Your task to perform on an android device: Find coffee shops on Maps Image 0: 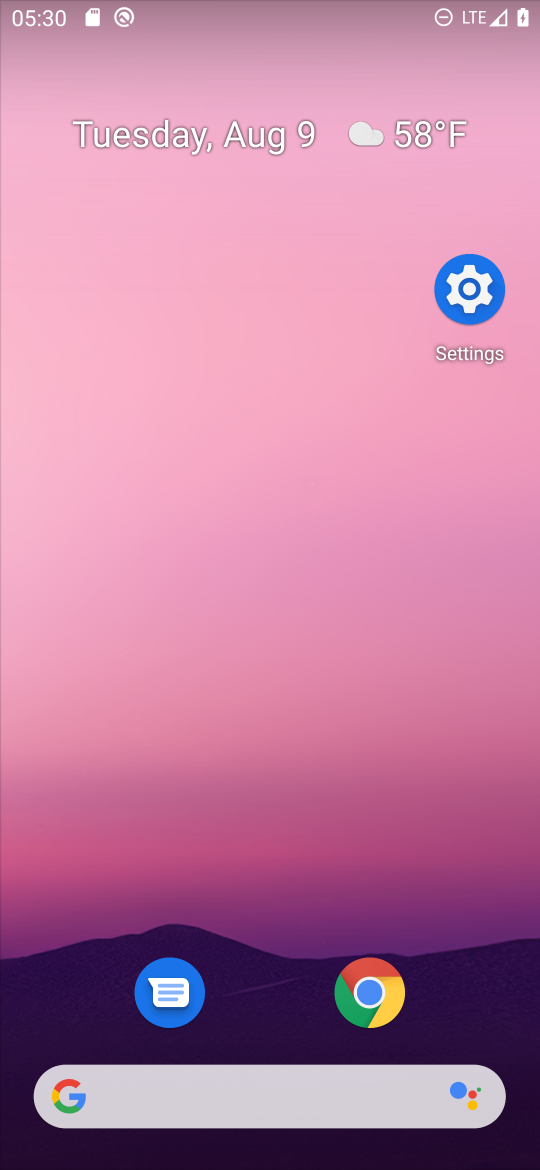
Step 0: drag from (205, 1099) to (449, 273)
Your task to perform on an android device: Find coffee shops on Maps Image 1: 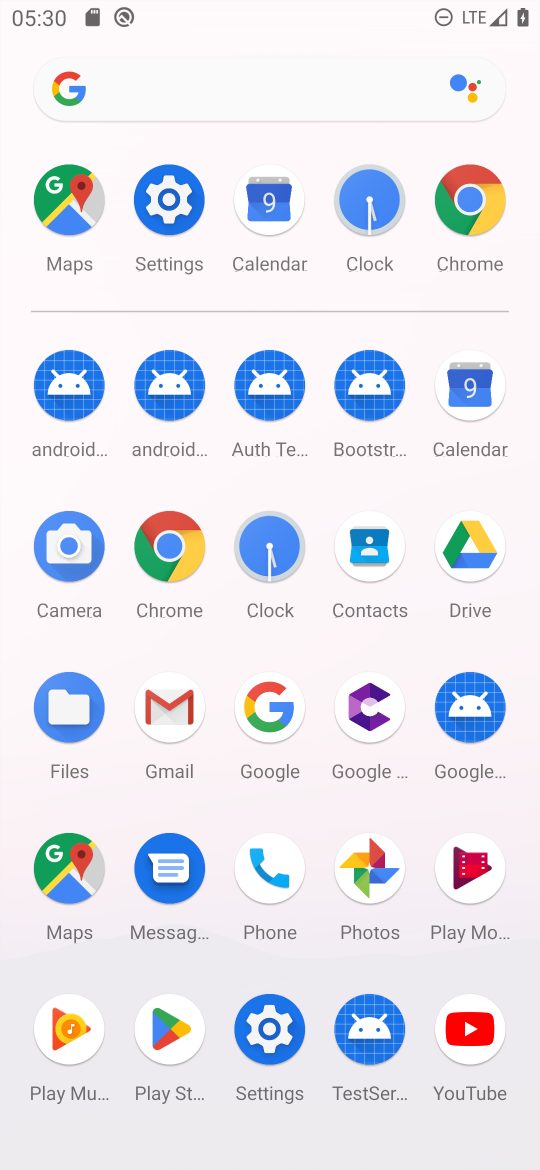
Step 1: click (82, 851)
Your task to perform on an android device: Find coffee shops on Maps Image 2: 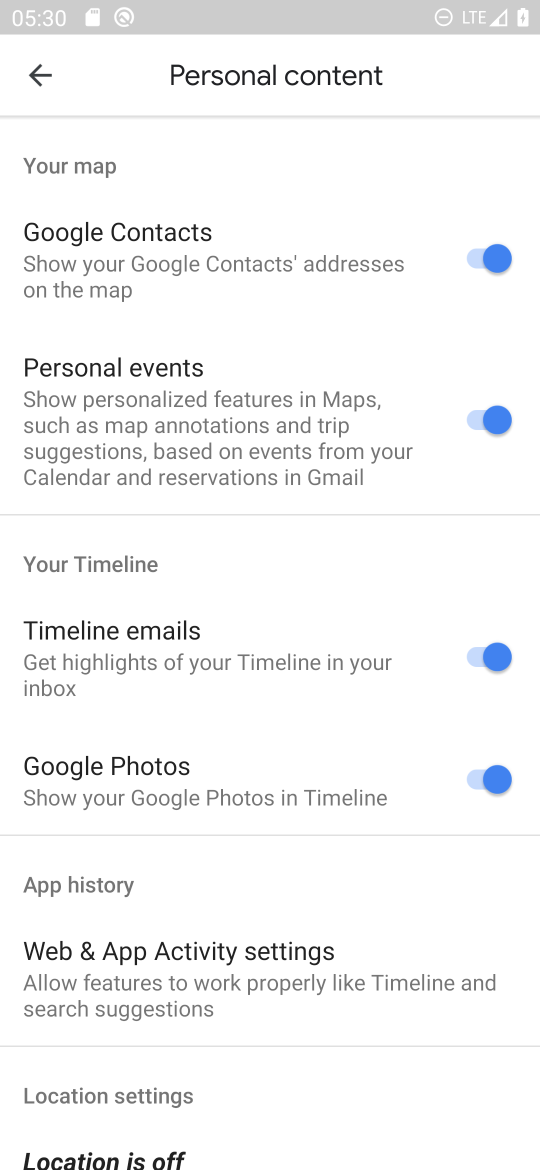
Step 2: press back button
Your task to perform on an android device: Find coffee shops on Maps Image 3: 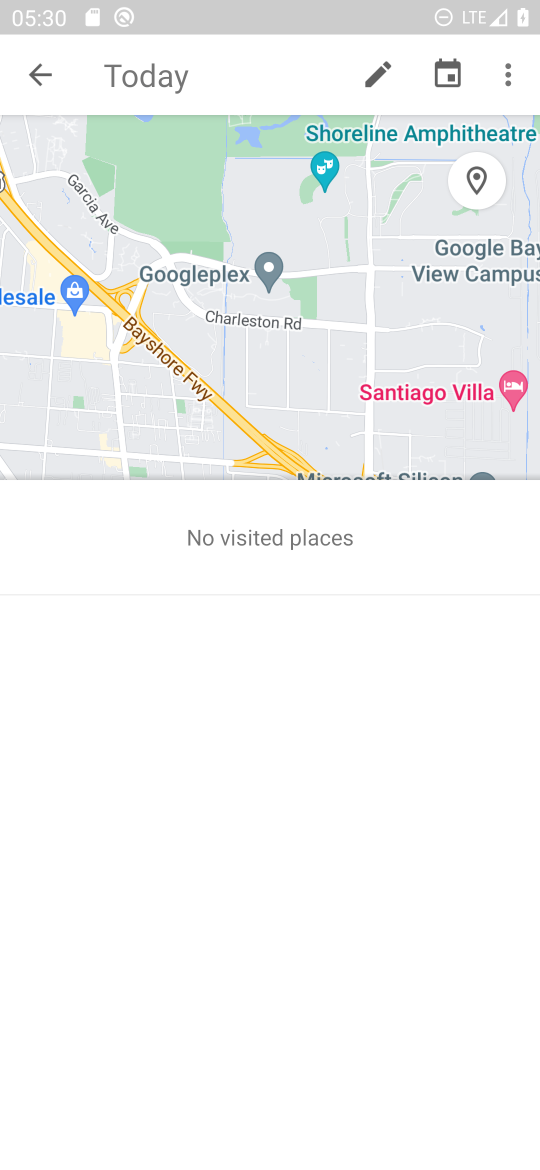
Step 3: press back button
Your task to perform on an android device: Find coffee shops on Maps Image 4: 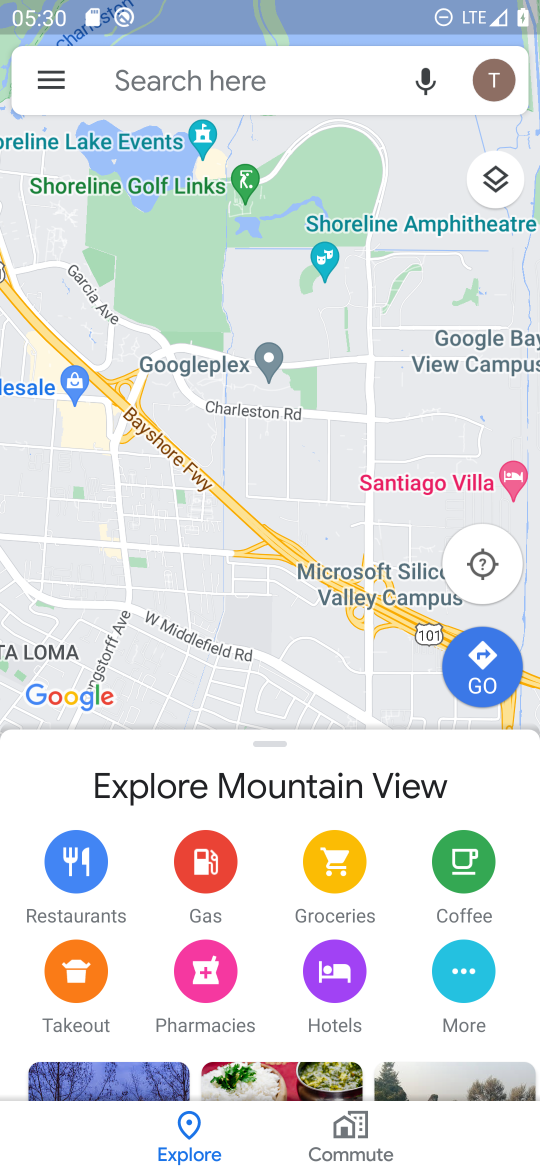
Step 4: click (300, 61)
Your task to perform on an android device: Find coffee shops on Maps Image 5: 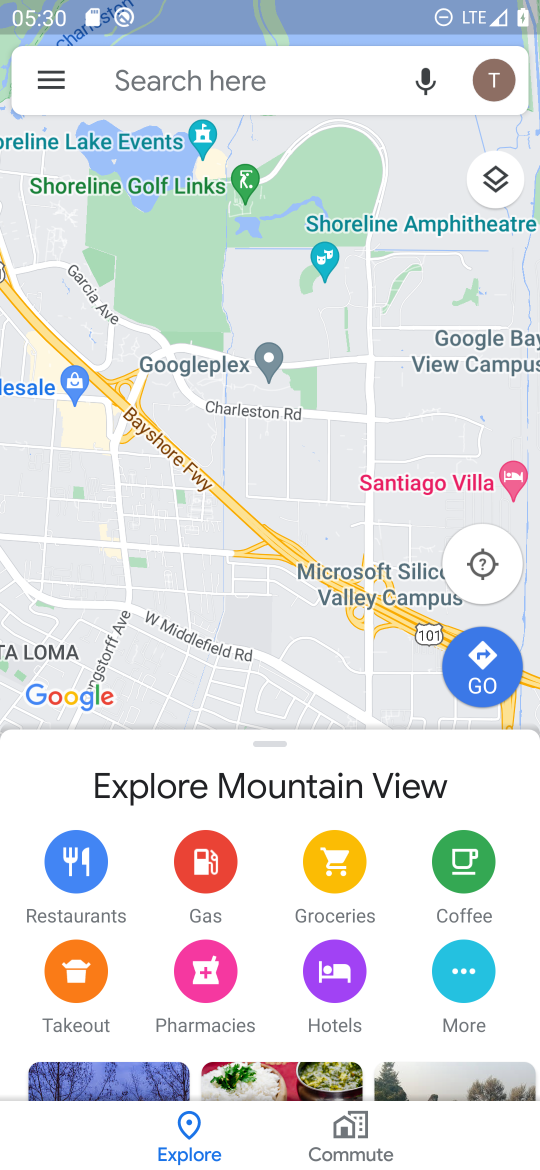
Step 5: click (300, 61)
Your task to perform on an android device: Find coffee shops on Maps Image 6: 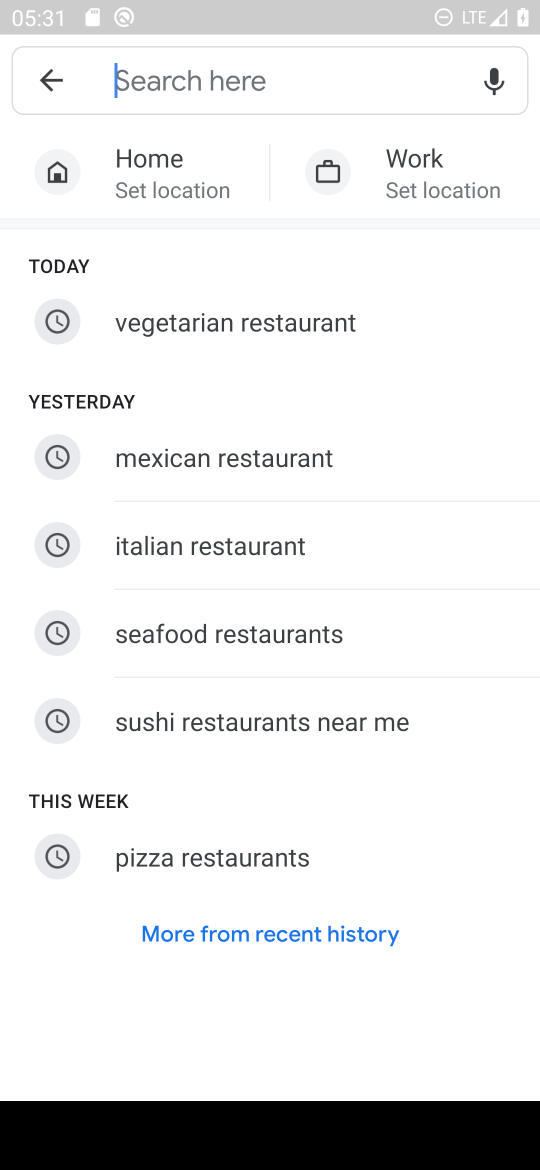
Step 6: type "coffee shops"
Your task to perform on an android device: Find coffee shops on Maps Image 7: 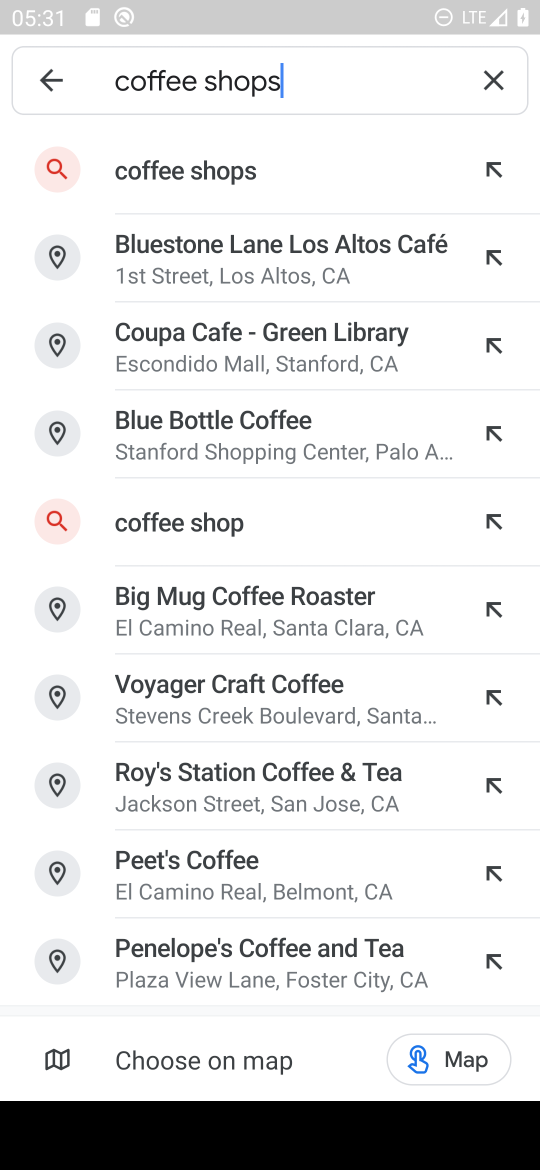
Step 7: click (301, 152)
Your task to perform on an android device: Find coffee shops on Maps Image 8: 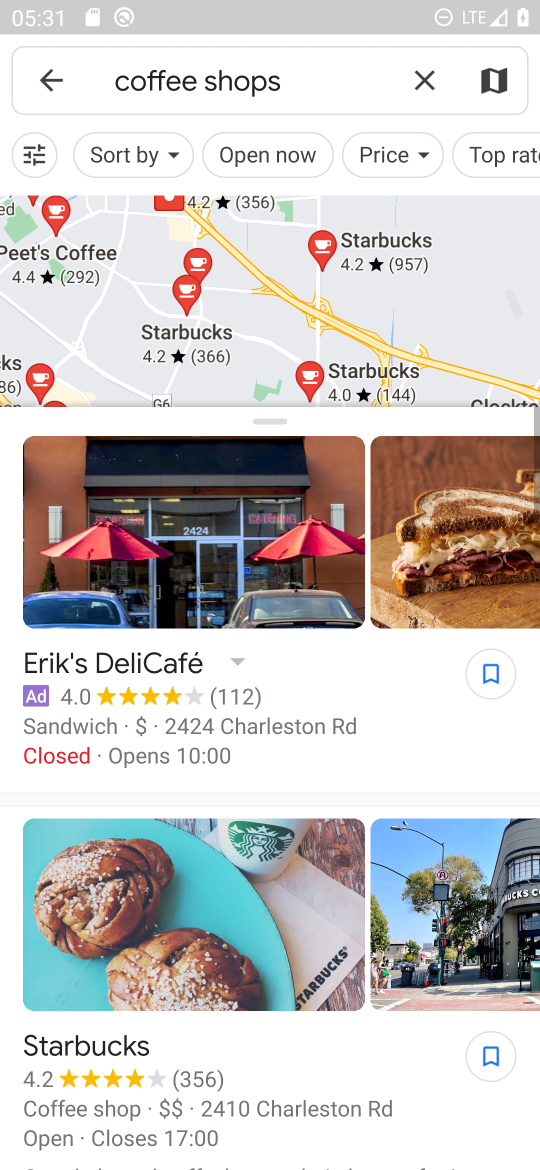
Step 8: task complete